Your task to perform on an android device: Open Youtube and go to "Your channel" Image 0: 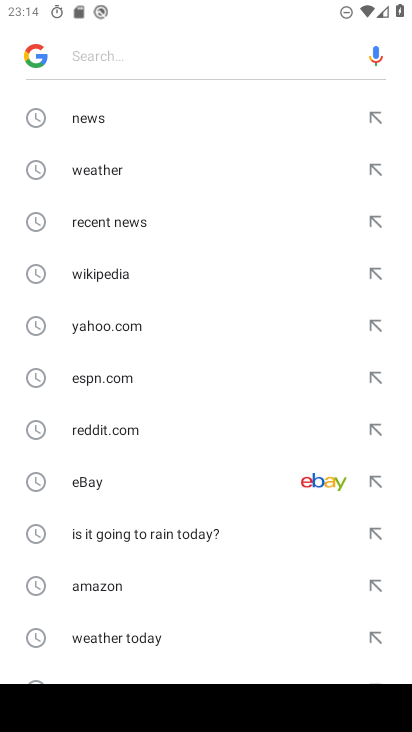
Step 0: press home button
Your task to perform on an android device: Open Youtube and go to "Your channel" Image 1: 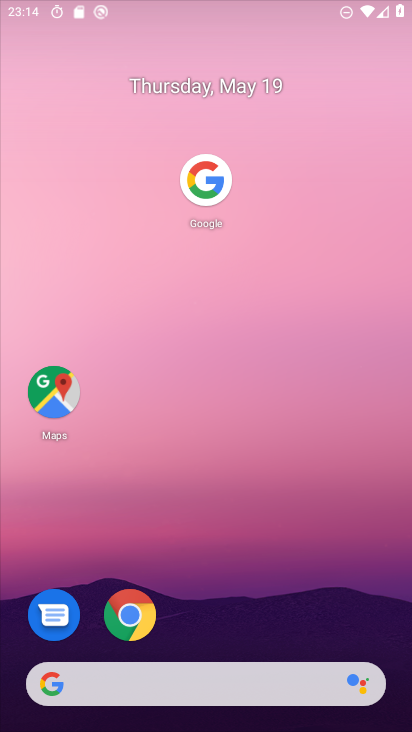
Step 1: drag from (244, 589) to (285, 56)
Your task to perform on an android device: Open Youtube and go to "Your channel" Image 2: 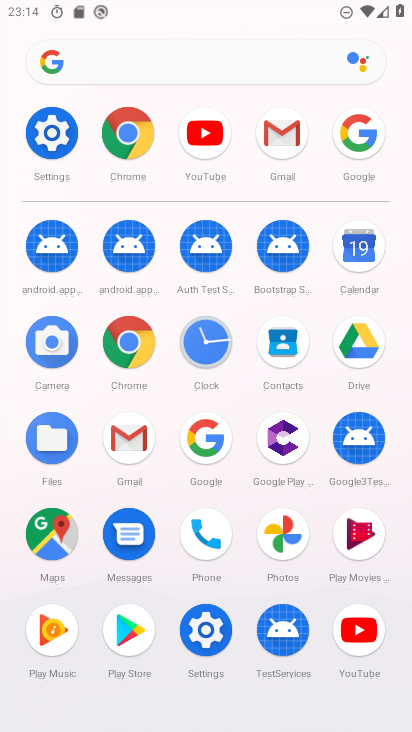
Step 2: click (361, 629)
Your task to perform on an android device: Open Youtube and go to "Your channel" Image 3: 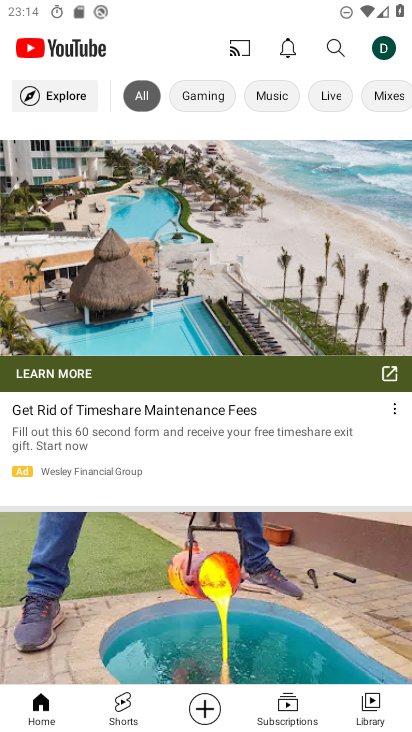
Step 3: click (382, 47)
Your task to perform on an android device: Open Youtube and go to "Your channel" Image 4: 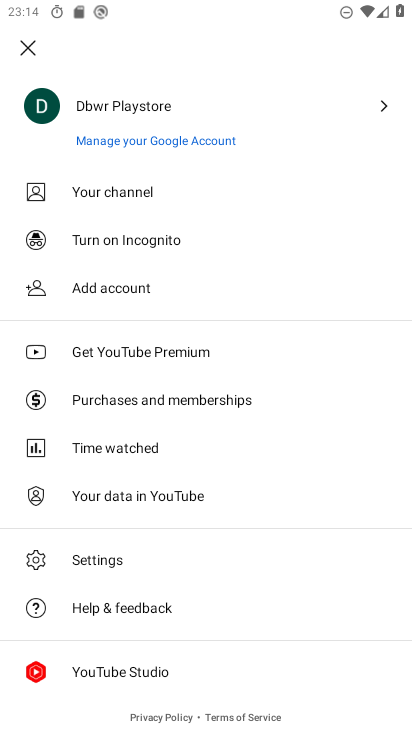
Step 4: click (138, 195)
Your task to perform on an android device: Open Youtube and go to "Your channel" Image 5: 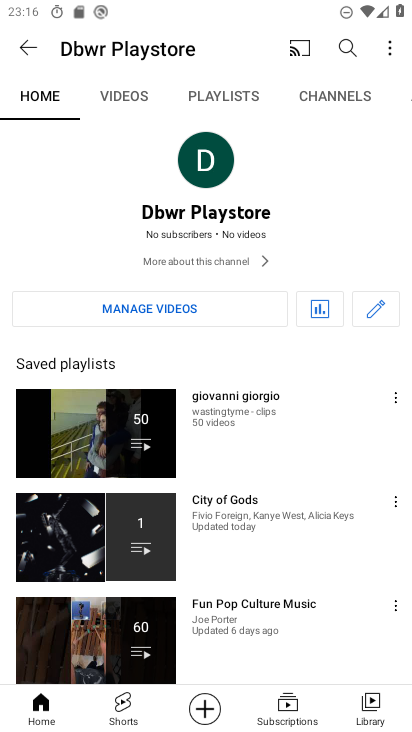
Step 5: task complete